Your task to perform on an android device: What's the news in Barbados? Image 0: 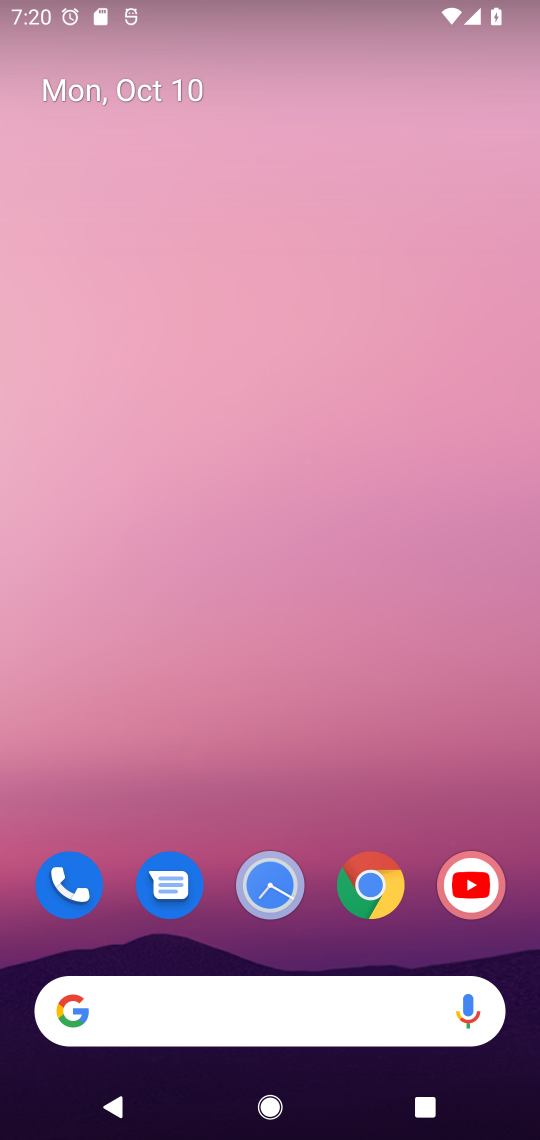
Step 0: click (375, 886)
Your task to perform on an android device: What's the news in Barbados? Image 1: 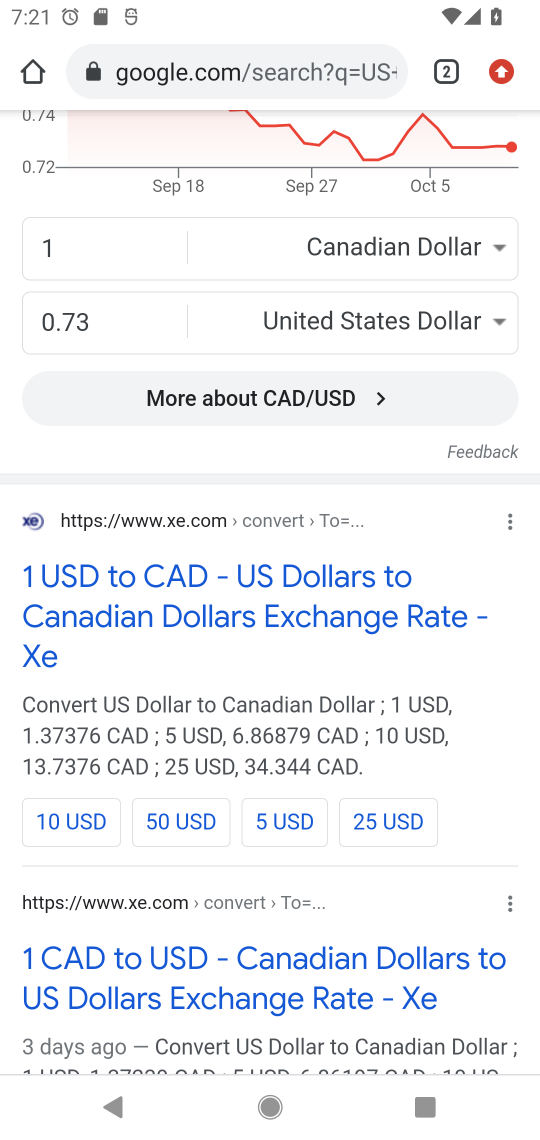
Step 1: click (261, 82)
Your task to perform on an android device: What's the news in Barbados? Image 2: 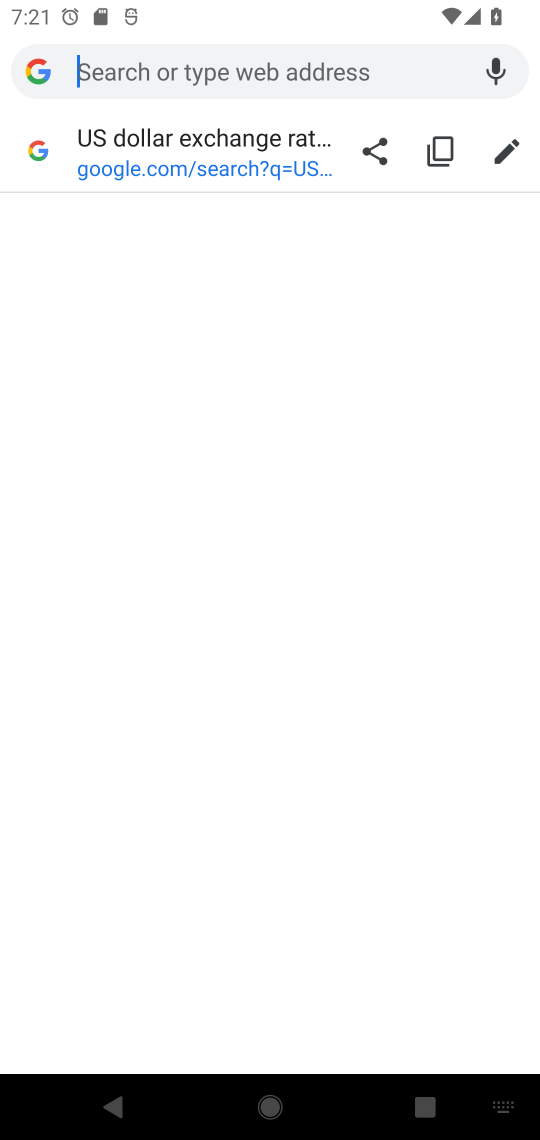
Step 2: type "Barbados"
Your task to perform on an android device: What's the news in Barbados? Image 3: 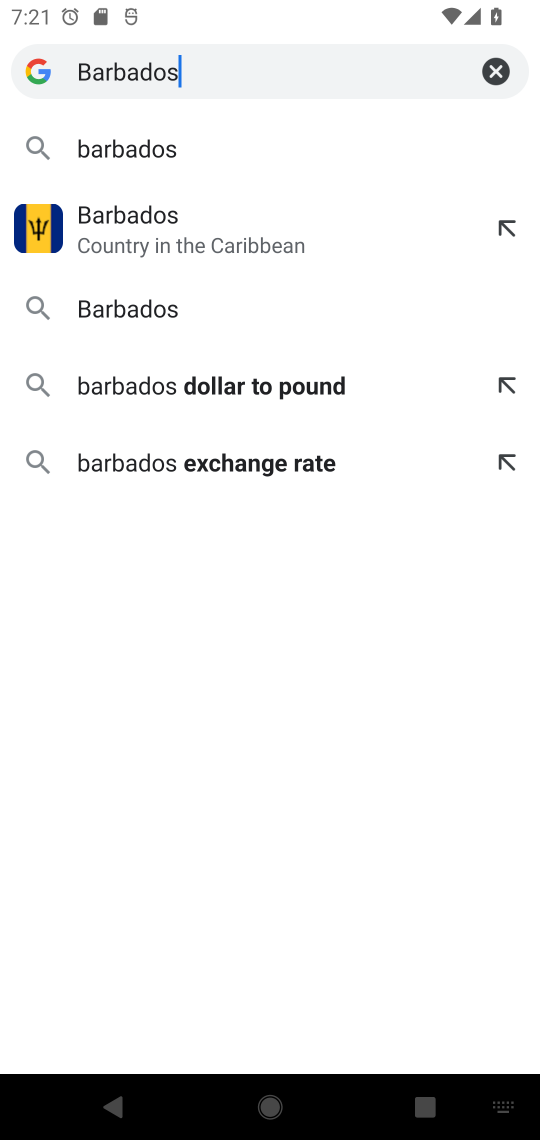
Step 3: click (153, 152)
Your task to perform on an android device: What's the news in Barbados? Image 4: 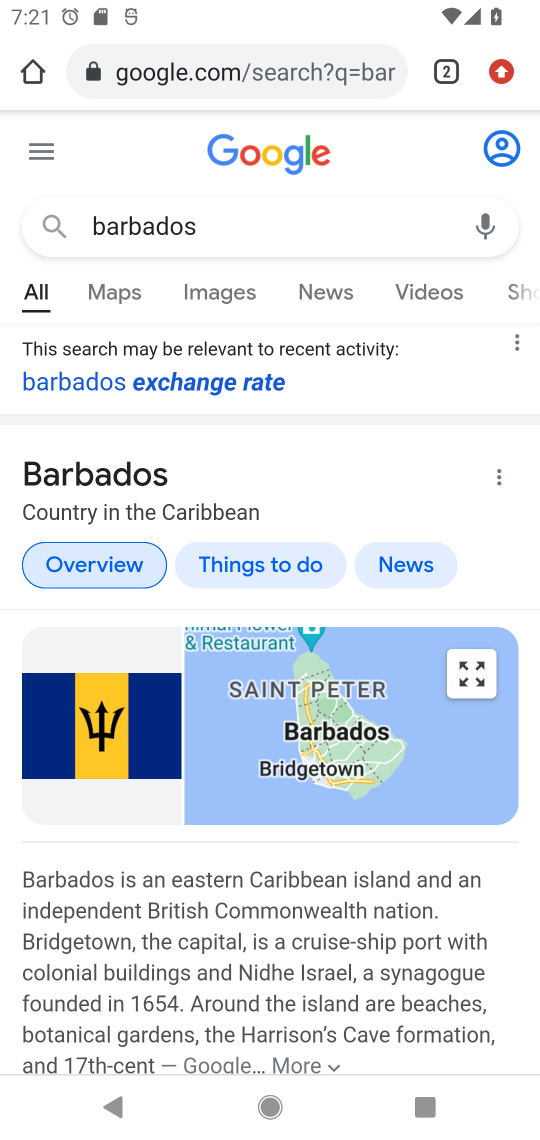
Step 4: click (405, 569)
Your task to perform on an android device: What's the news in Barbados? Image 5: 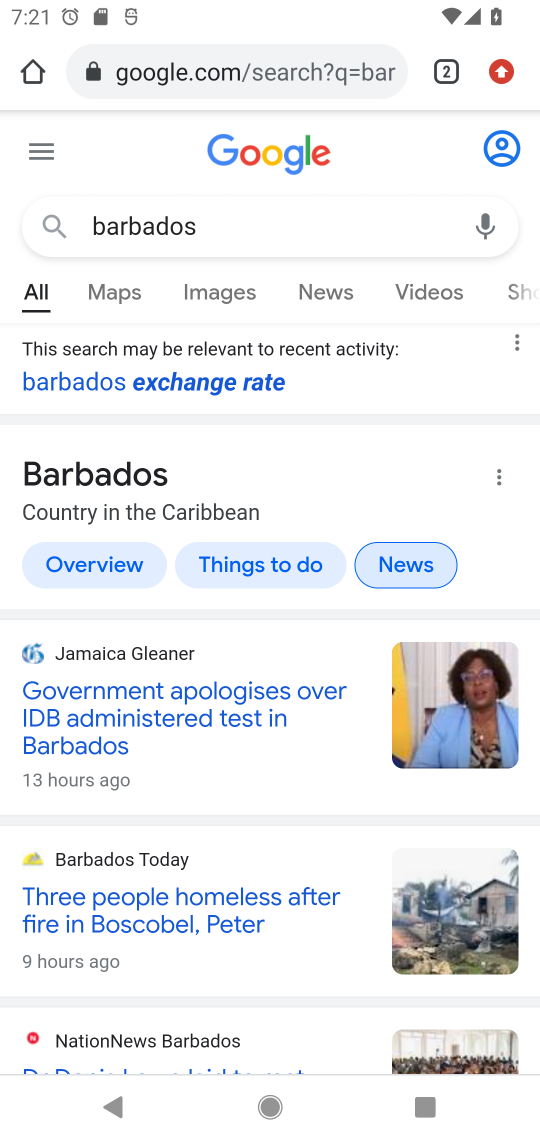
Step 5: task complete